Your task to perform on an android device: Go to CNN.com Image 0: 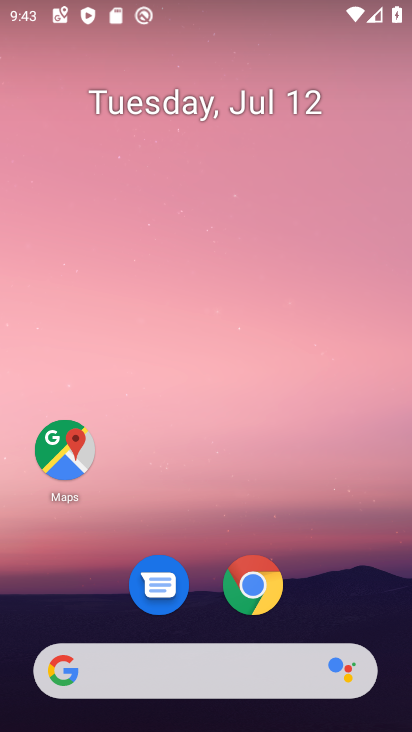
Step 0: click (255, 595)
Your task to perform on an android device: Go to CNN.com Image 1: 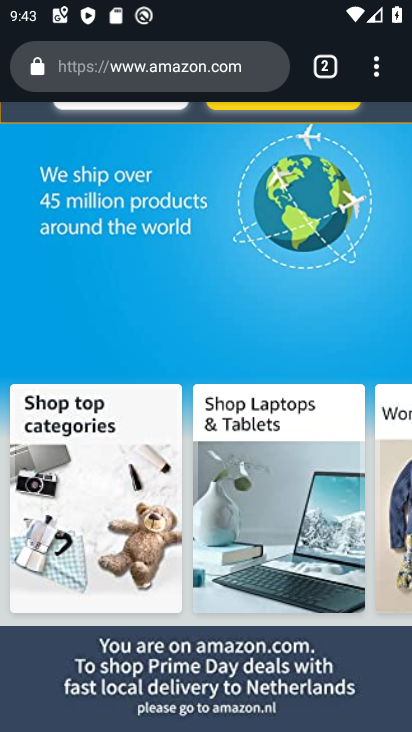
Step 1: drag from (375, 77) to (224, 130)
Your task to perform on an android device: Go to CNN.com Image 2: 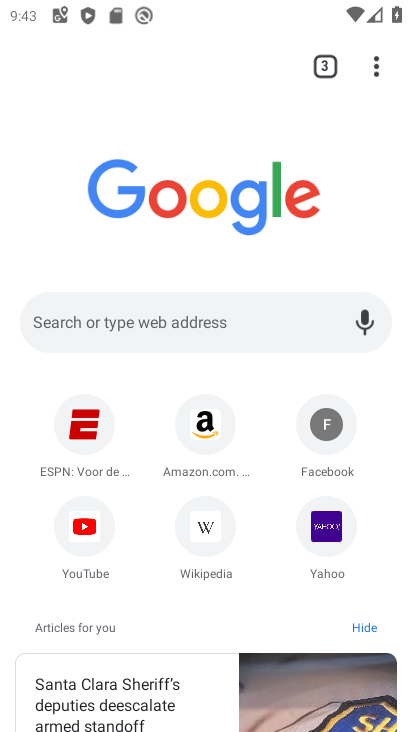
Step 2: click (180, 326)
Your task to perform on an android device: Go to CNN.com Image 3: 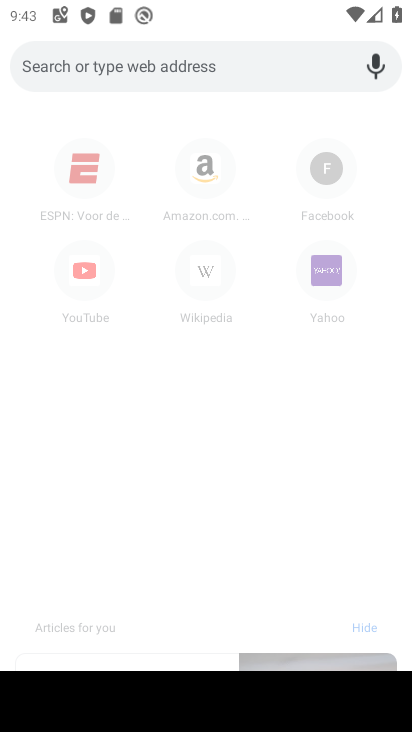
Step 3: type "cnn.com"
Your task to perform on an android device: Go to CNN.com Image 4: 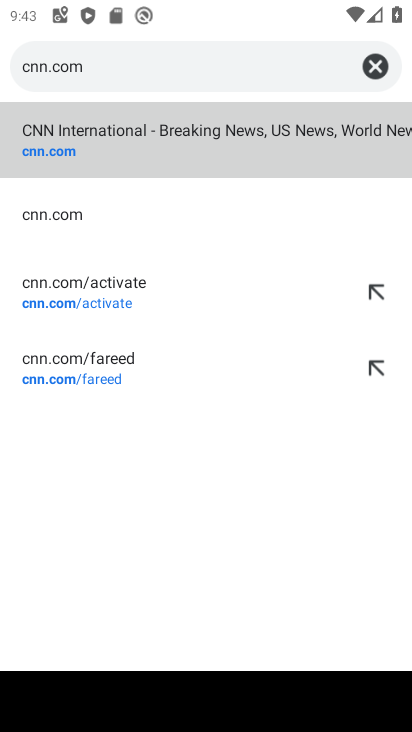
Step 4: click (158, 145)
Your task to perform on an android device: Go to CNN.com Image 5: 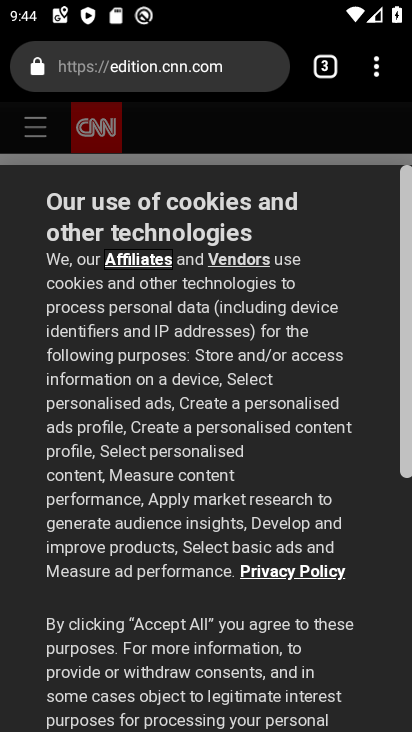
Step 5: drag from (237, 632) to (398, 145)
Your task to perform on an android device: Go to CNN.com Image 6: 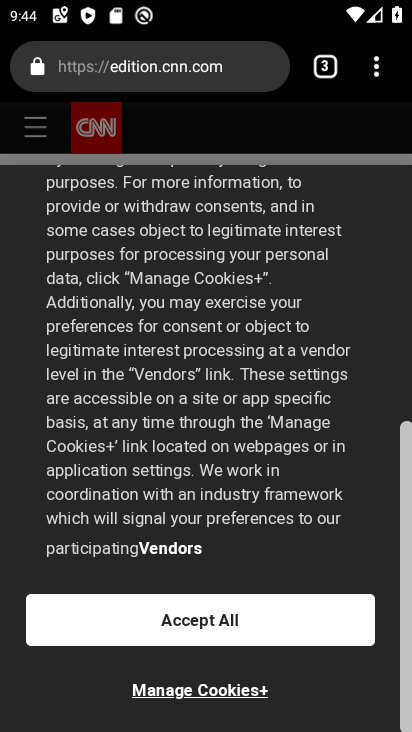
Step 6: click (252, 636)
Your task to perform on an android device: Go to CNN.com Image 7: 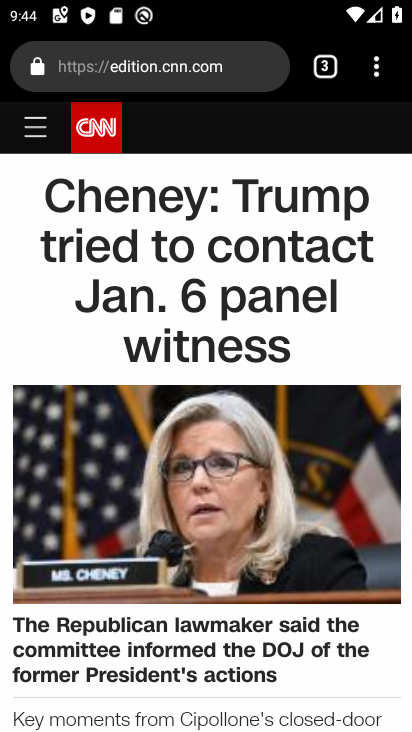
Step 7: task complete